Your task to perform on an android device: uninstall "Pandora - Music & Podcasts" Image 0: 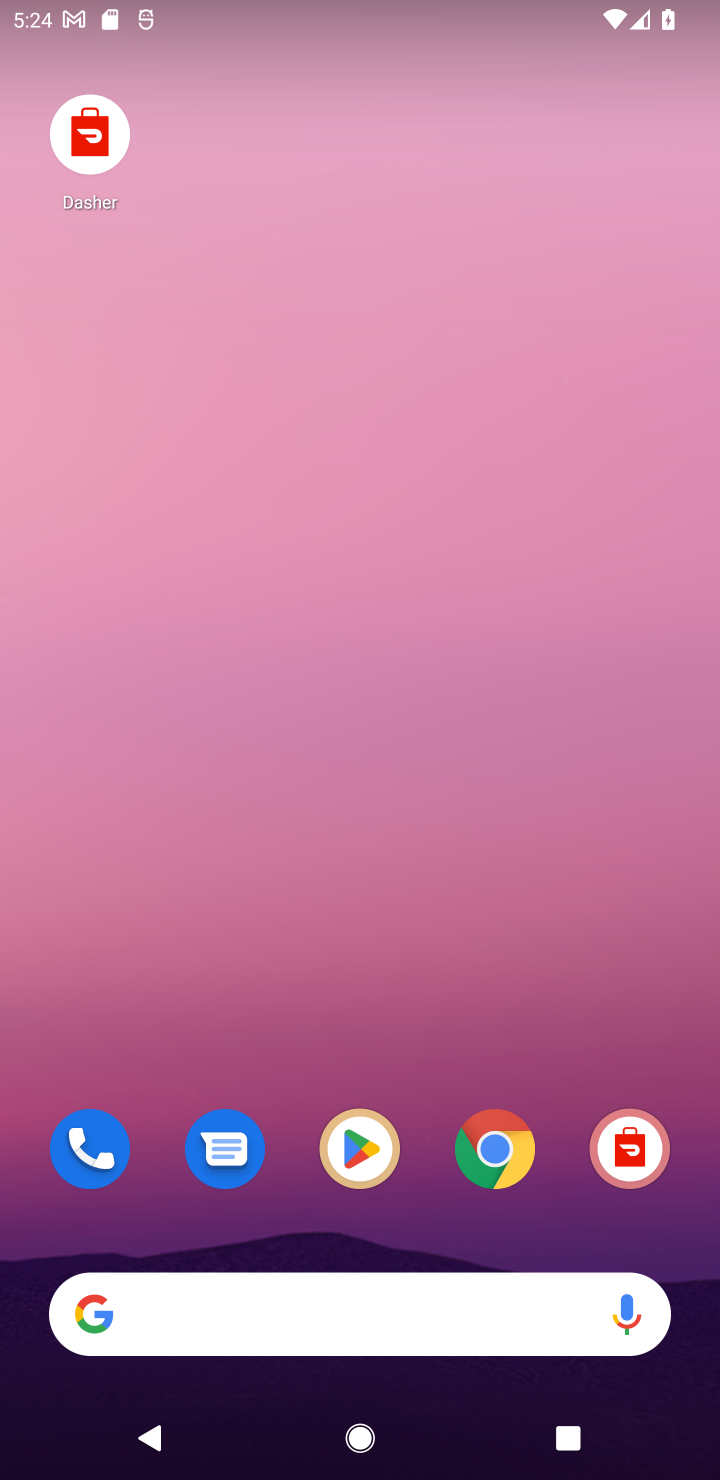
Step 0: click (362, 1146)
Your task to perform on an android device: uninstall "Pandora - Music & Podcasts" Image 1: 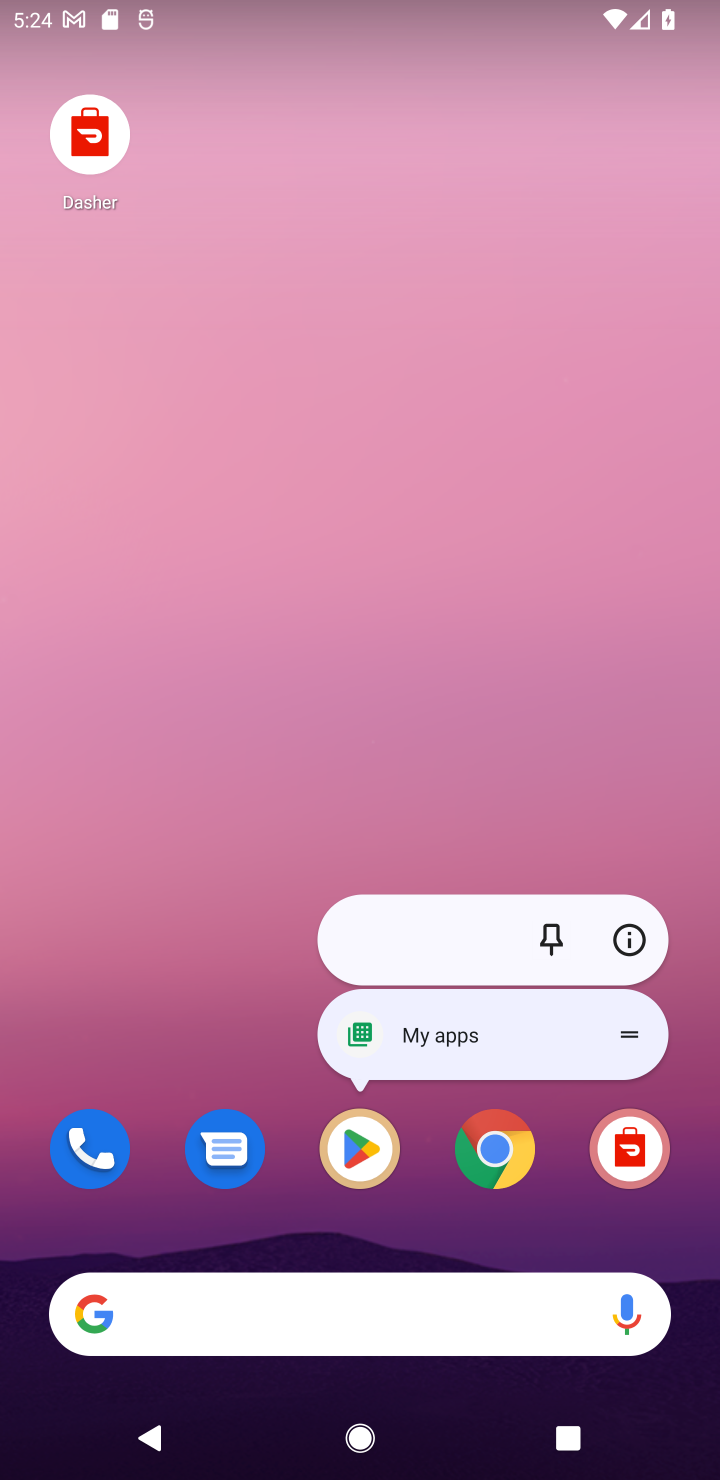
Step 1: click (349, 1160)
Your task to perform on an android device: uninstall "Pandora - Music & Podcasts" Image 2: 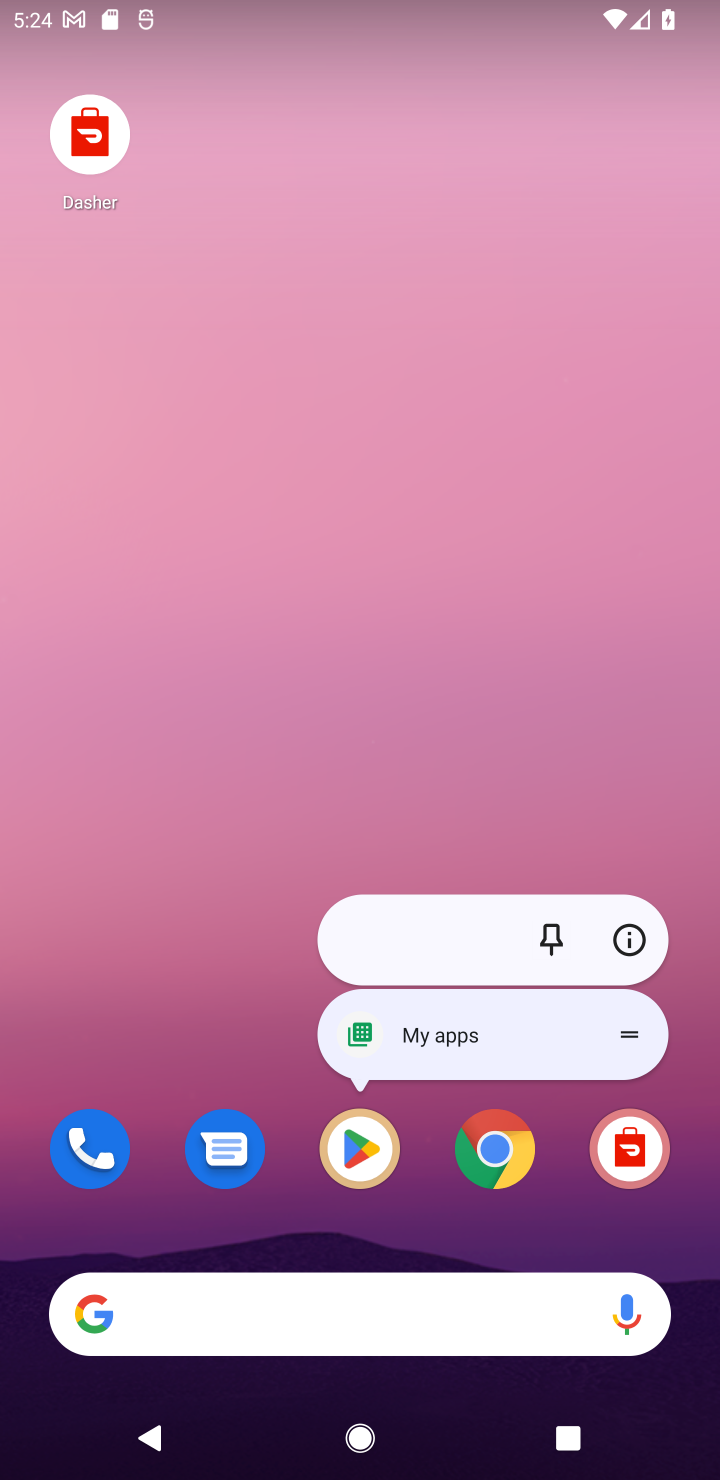
Step 2: click (350, 1151)
Your task to perform on an android device: uninstall "Pandora - Music & Podcasts" Image 3: 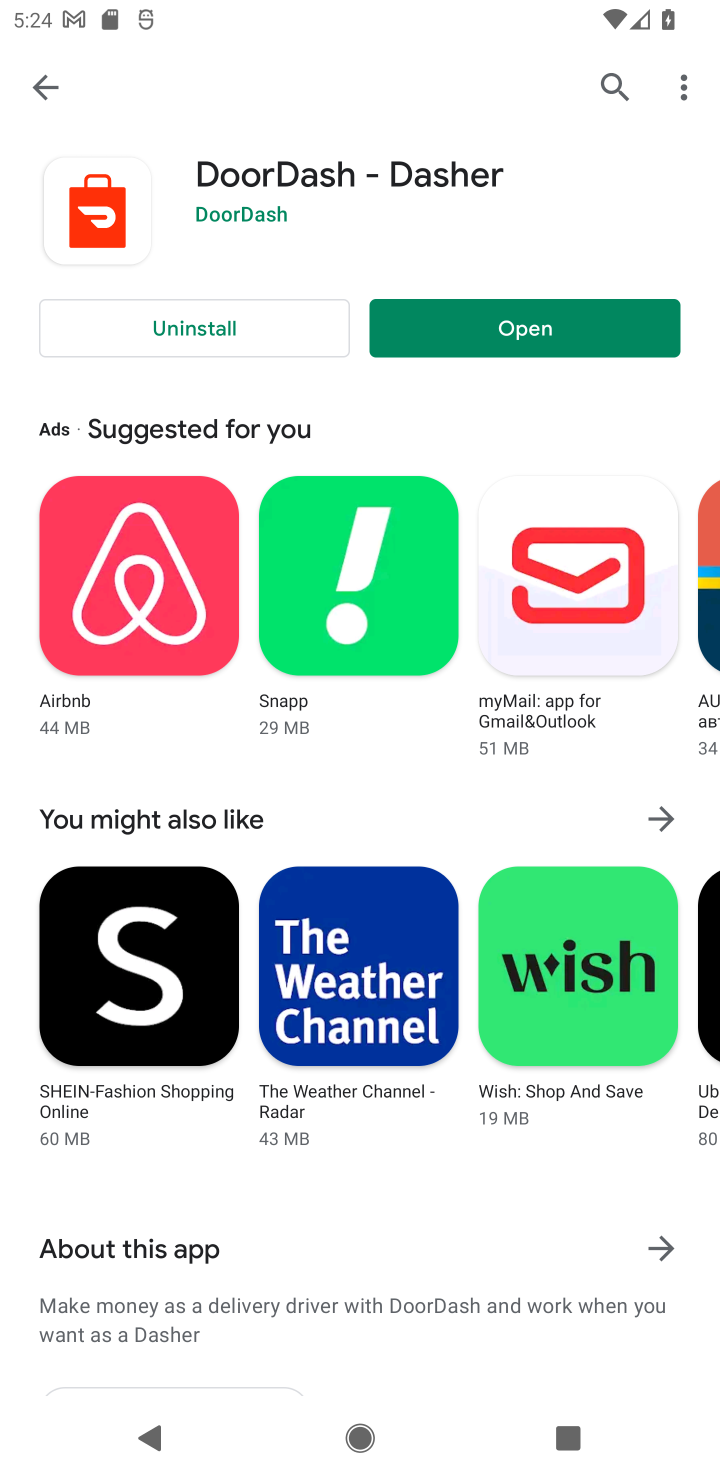
Step 3: click (607, 91)
Your task to perform on an android device: uninstall "Pandora - Music & Podcasts" Image 4: 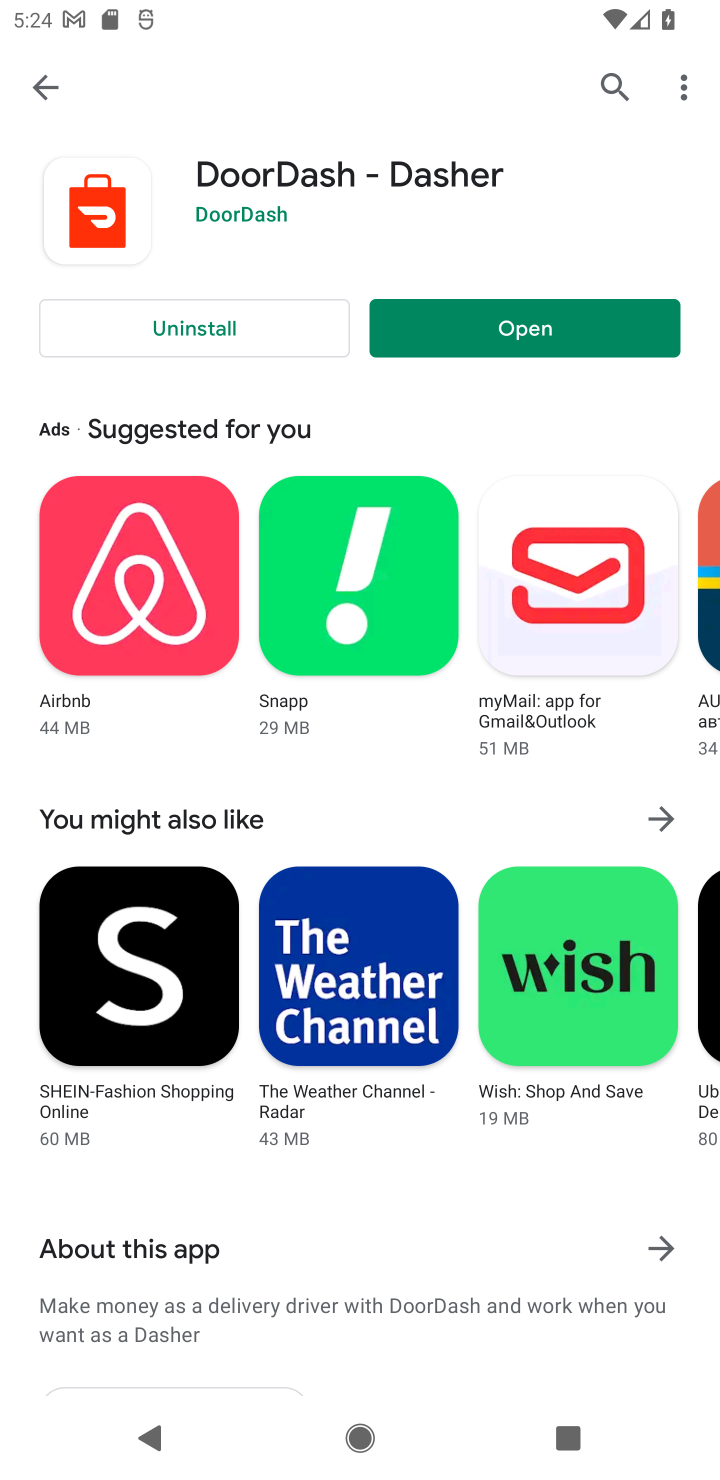
Step 4: click (616, 80)
Your task to perform on an android device: uninstall "Pandora - Music & Podcasts" Image 5: 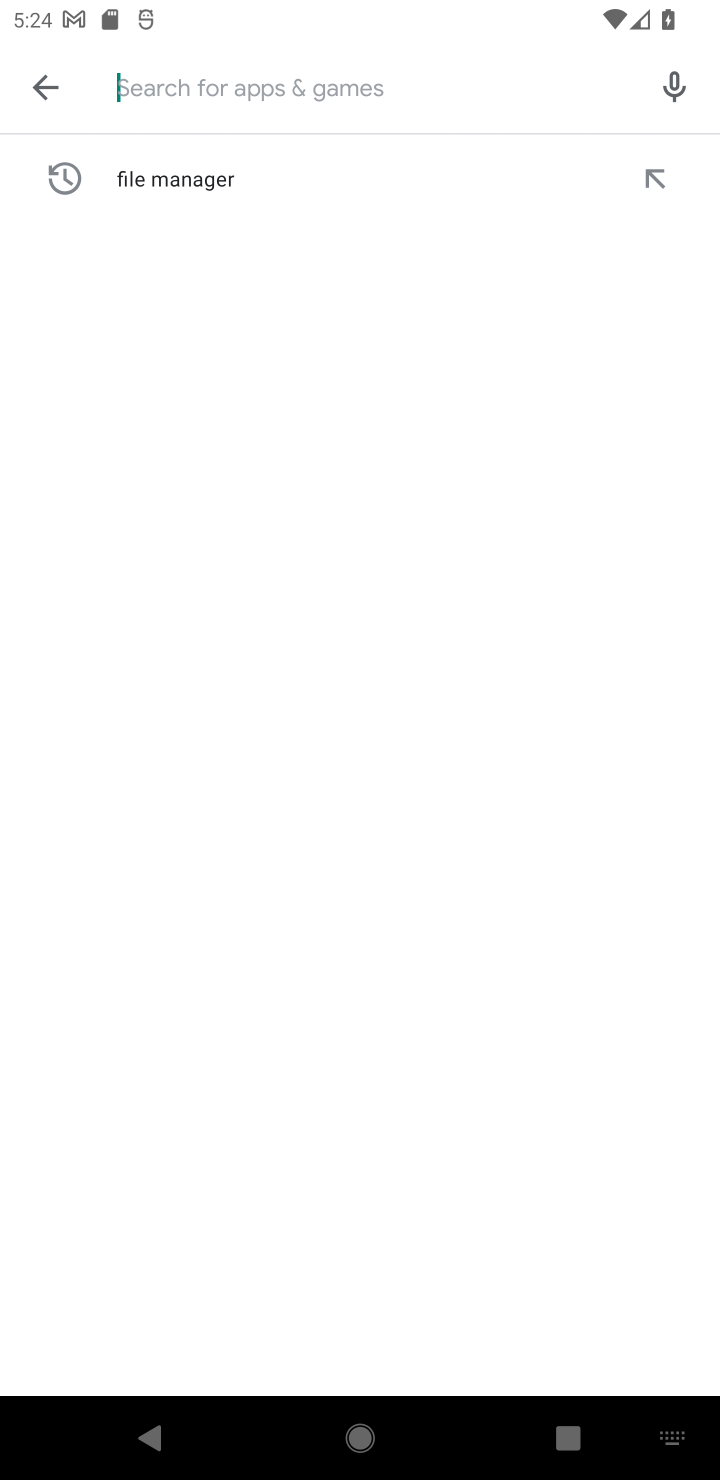
Step 5: type "Pandora - Music & Podcasts"
Your task to perform on an android device: uninstall "Pandora - Music & Podcasts" Image 6: 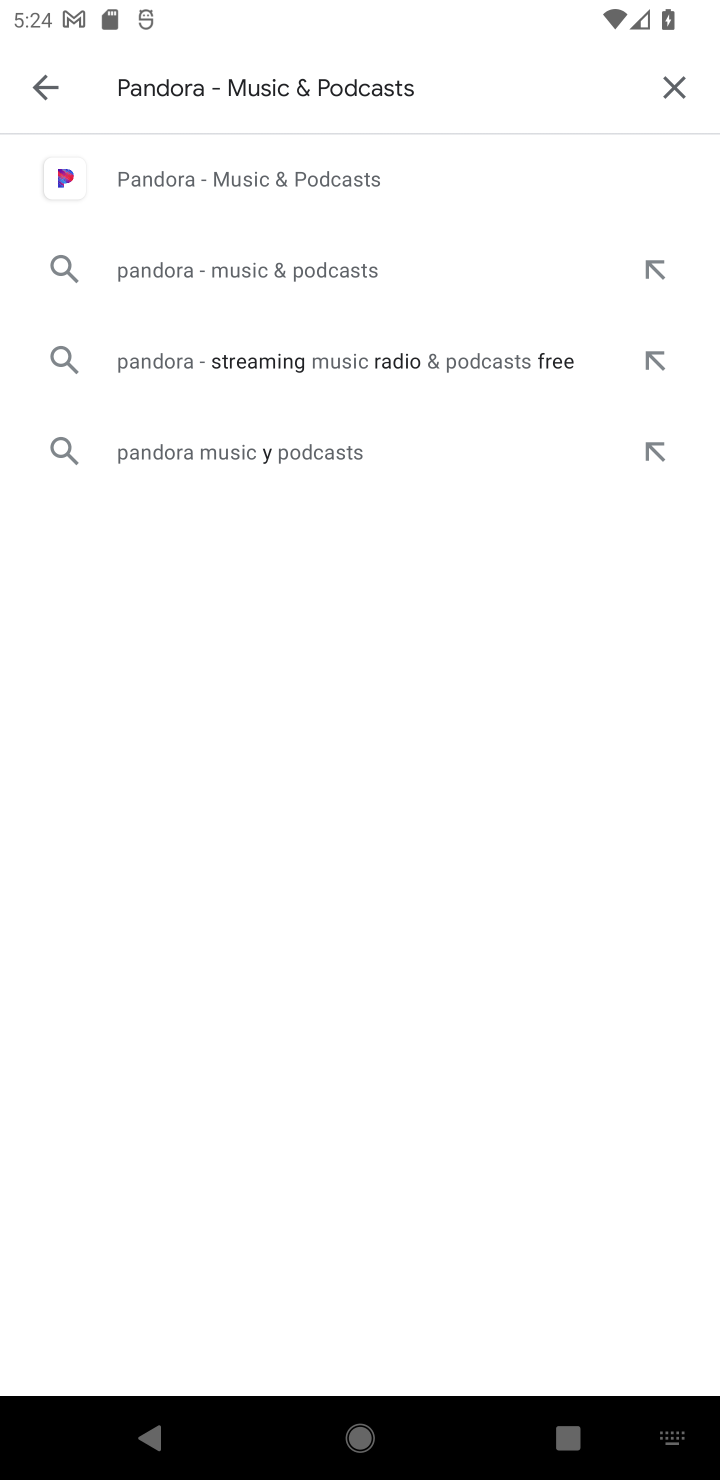
Step 6: click (246, 174)
Your task to perform on an android device: uninstall "Pandora - Music & Podcasts" Image 7: 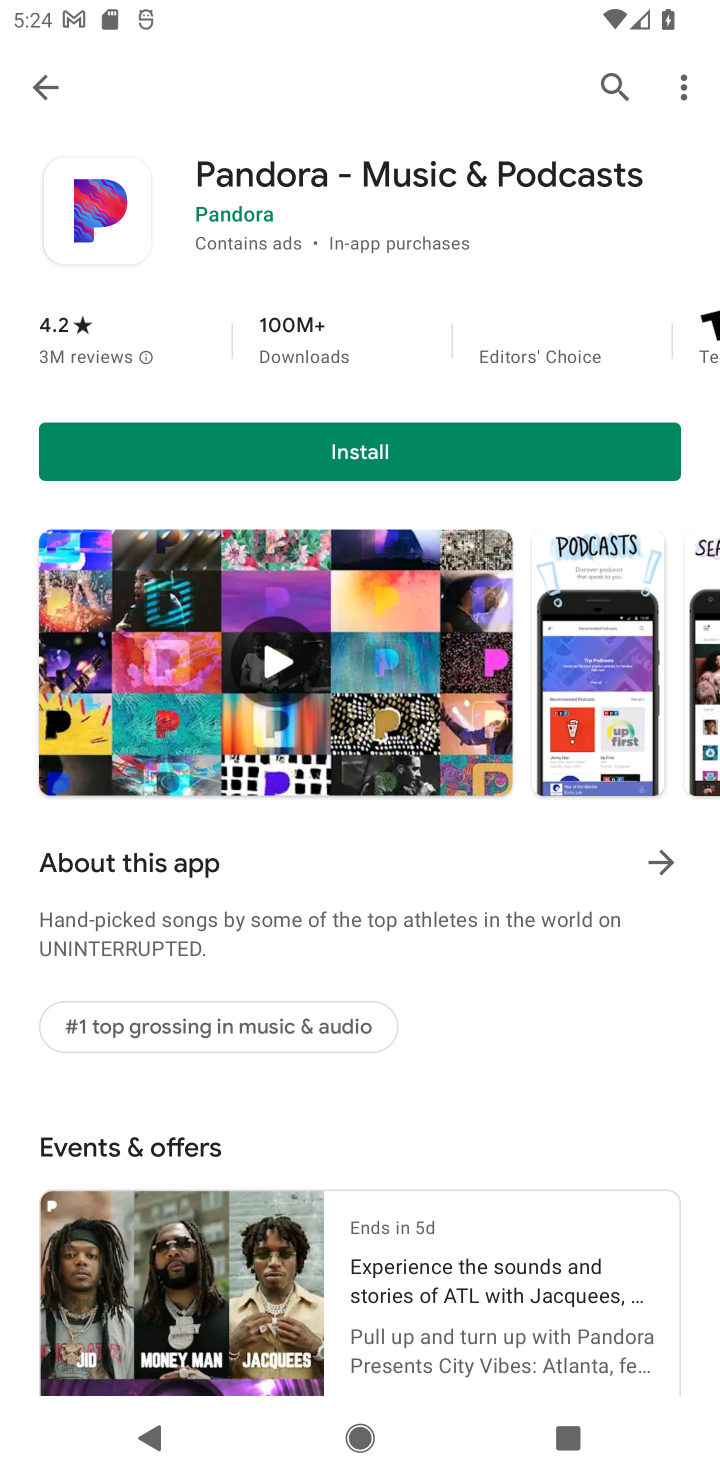
Step 7: task complete